Your task to perform on an android device: toggle javascript in the chrome app Image 0: 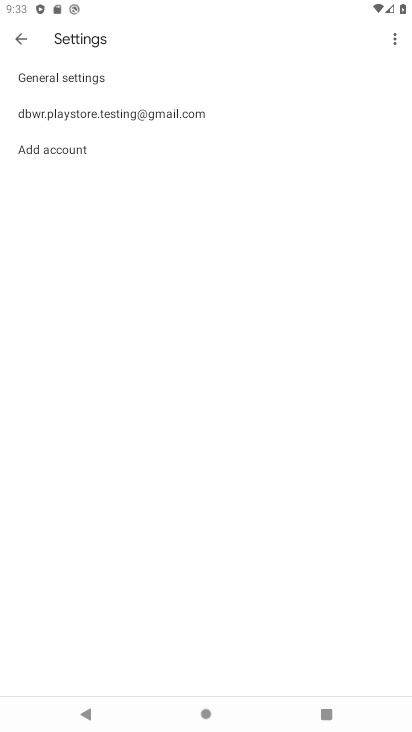
Step 0: press back button
Your task to perform on an android device: toggle javascript in the chrome app Image 1: 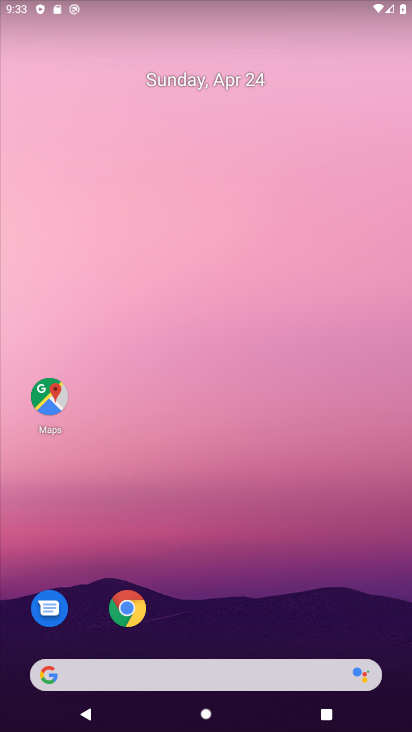
Step 1: drag from (277, 594) to (258, 22)
Your task to perform on an android device: toggle javascript in the chrome app Image 2: 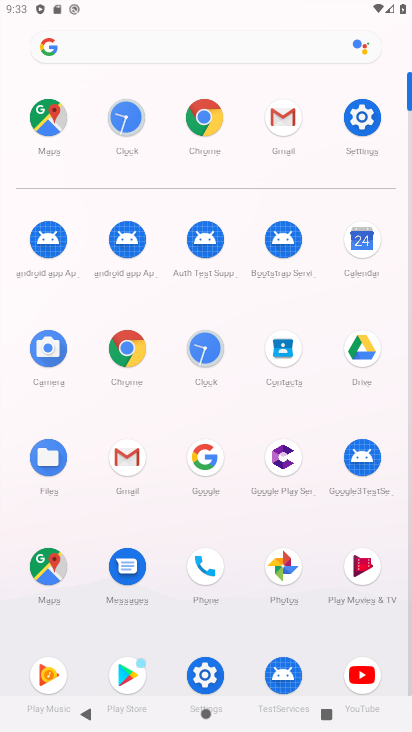
Step 2: click (210, 108)
Your task to perform on an android device: toggle javascript in the chrome app Image 3: 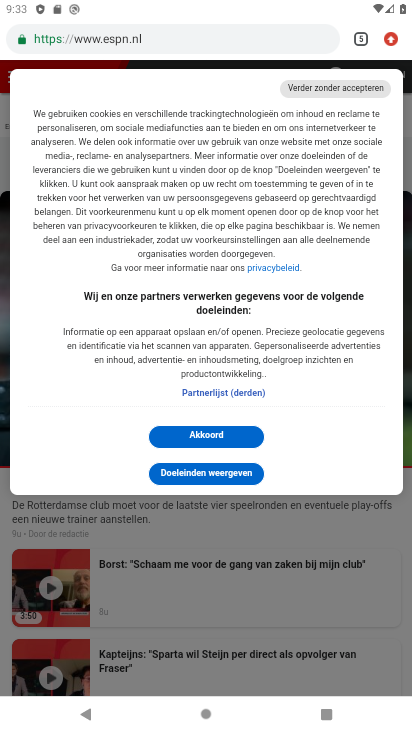
Step 3: click (389, 39)
Your task to perform on an android device: toggle javascript in the chrome app Image 4: 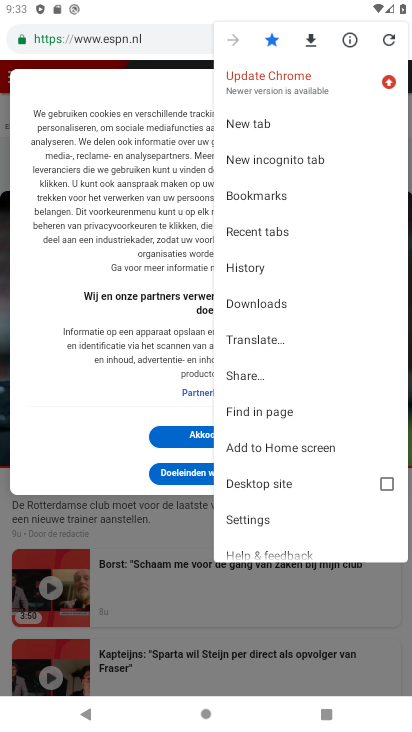
Step 4: click (249, 516)
Your task to perform on an android device: toggle javascript in the chrome app Image 5: 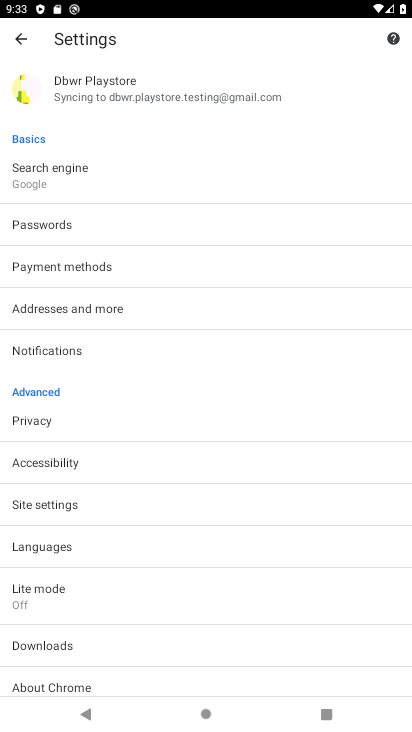
Step 5: click (70, 508)
Your task to perform on an android device: toggle javascript in the chrome app Image 6: 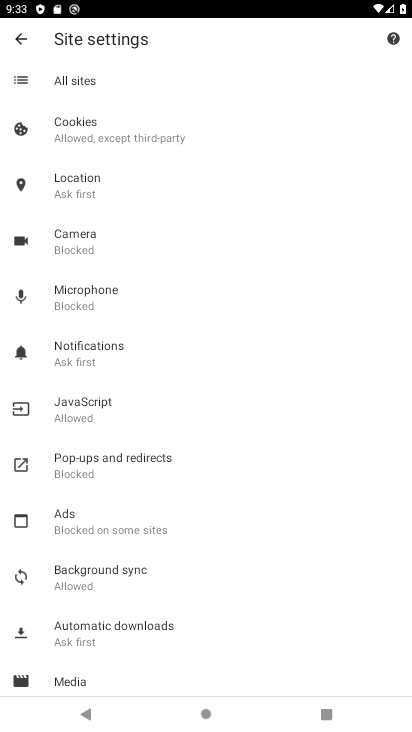
Step 6: click (141, 402)
Your task to perform on an android device: toggle javascript in the chrome app Image 7: 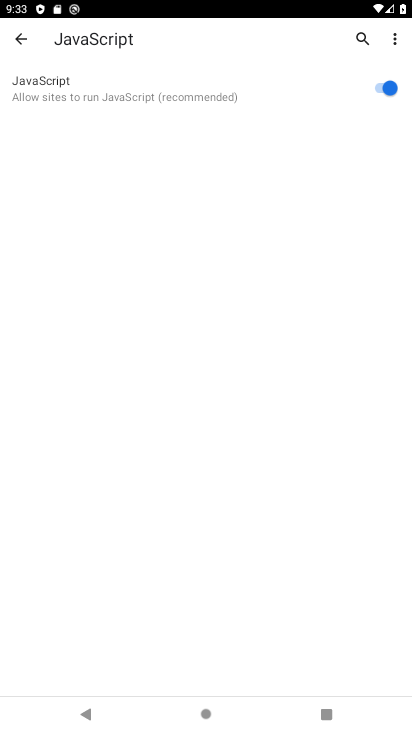
Step 7: task complete